Your task to perform on an android device: remove spam from my inbox in the gmail app Image 0: 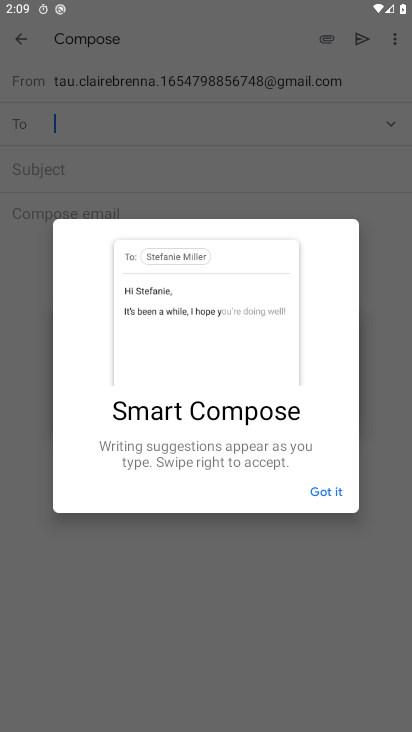
Step 0: press home button
Your task to perform on an android device: remove spam from my inbox in the gmail app Image 1: 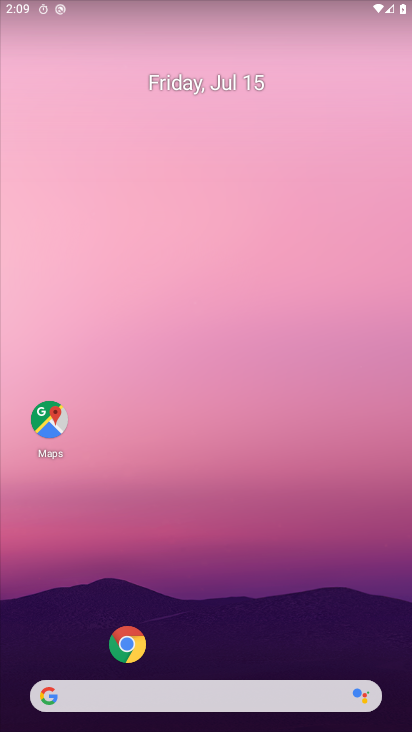
Step 1: drag from (62, 692) to (288, 0)
Your task to perform on an android device: remove spam from my inbox in the gmail app Image 2: 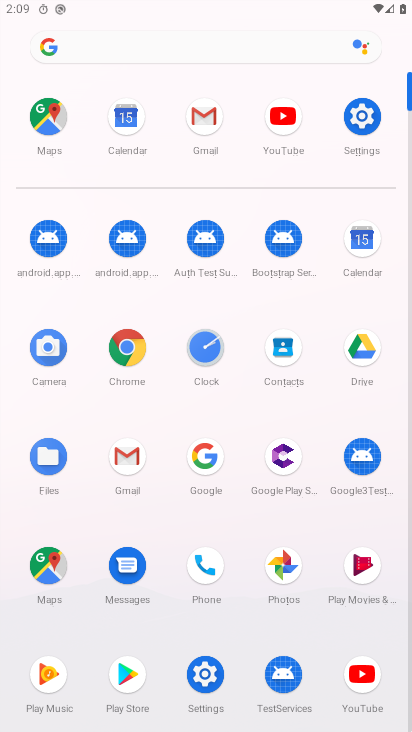
Step 2: click (131, 452)
Your task to perform on an android device: remove spam from my inbox in the gmail app Image 3: 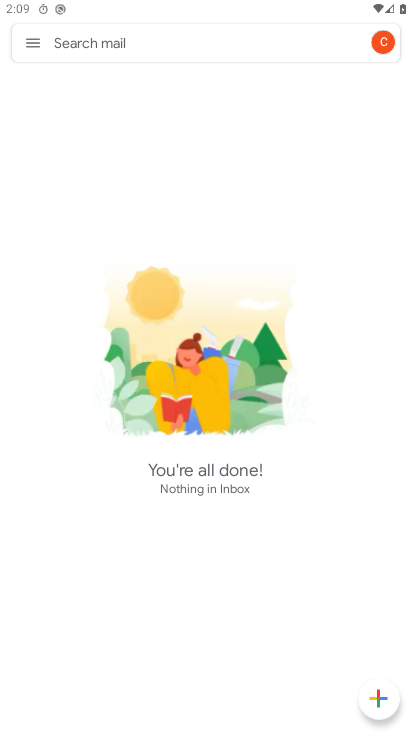
Step 3: click (30, 51)
Your task to perform on an android device: remove spam from my inbox in the gmail app Image 4: 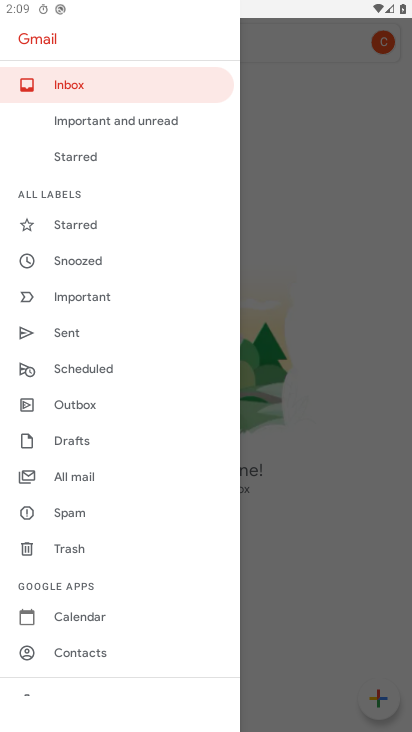
Step 4: click (72, 514)
Your task to perform on an android device: remove spam from my inbox in the gmail app Image 5: 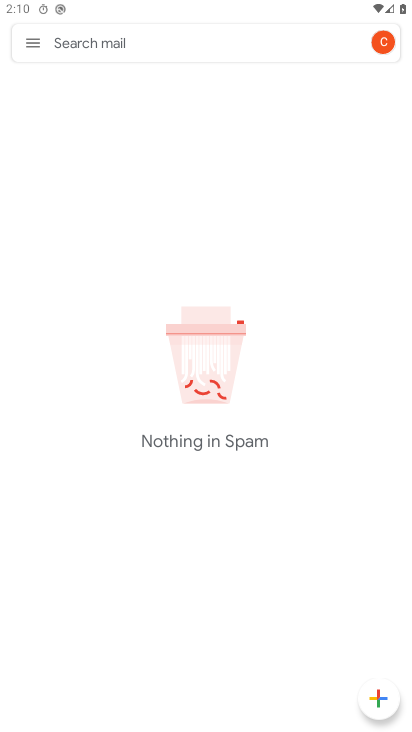
Step 5: task complete